Your task to perform on an android device: Search for Mexican restaurants on Maps Image 0: 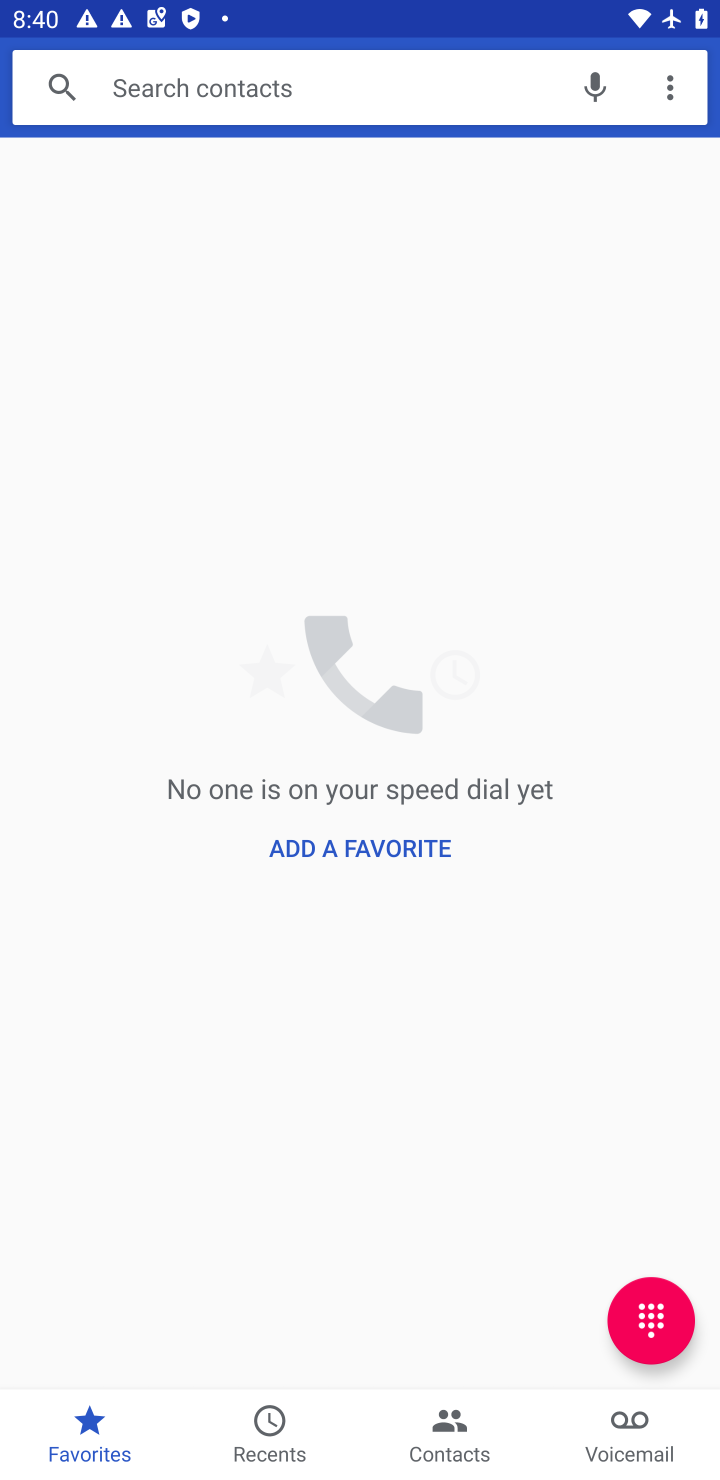
Step 0: press home button
Your task to perform on an android device: Search for Mexican restaurants on Maps Image 1: 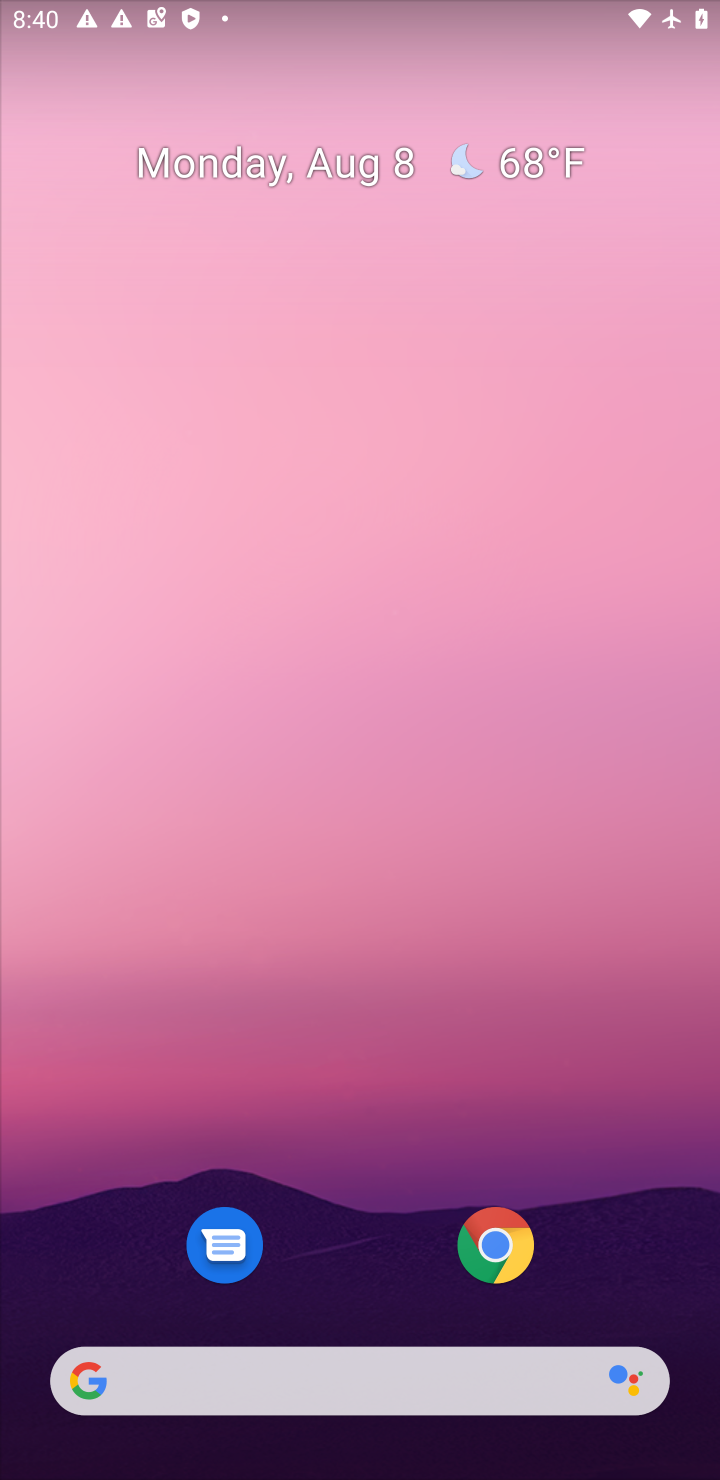
Step 1: drag from (385, 1133) to (328, 6)
Your task to perform on an android device: Search for Mexican restaurants on Maps Image 2: 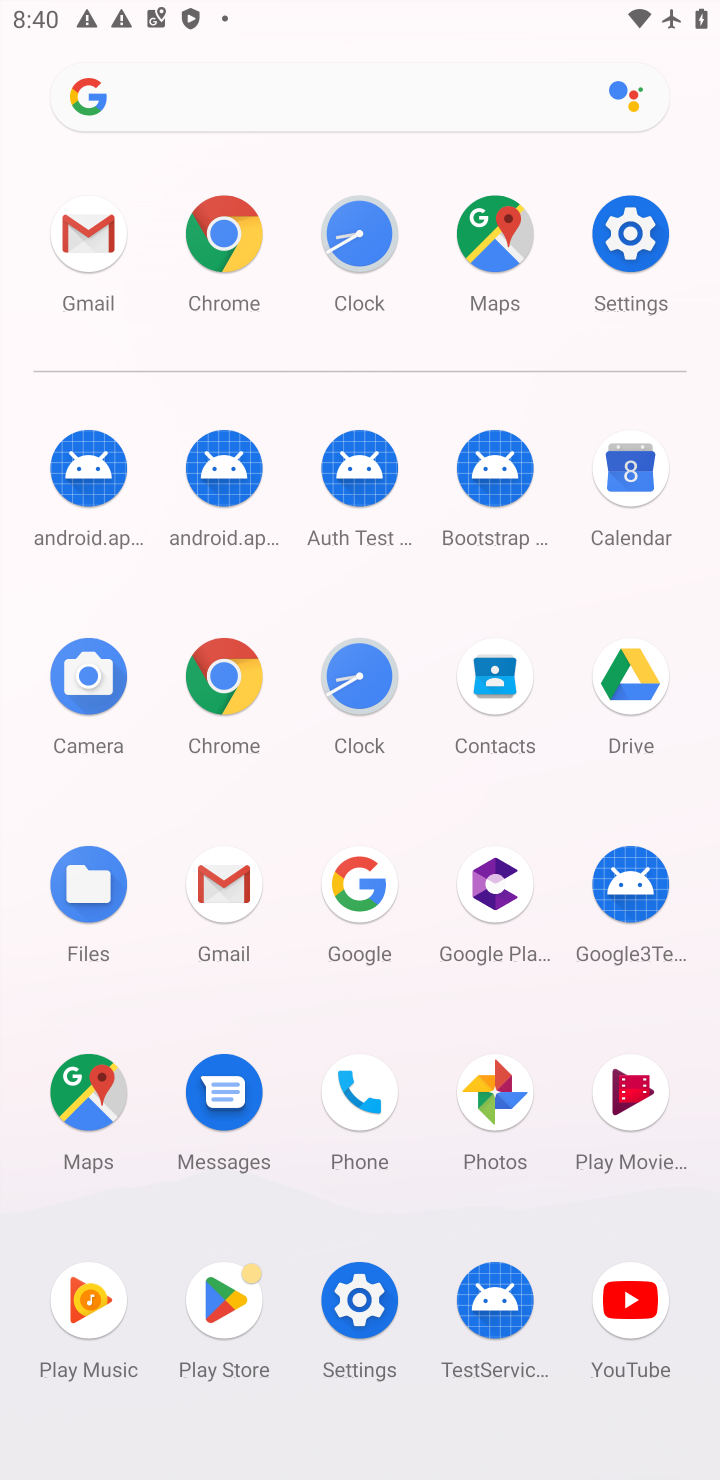
Step 2: click (81, 1082)
Your task to perform on an android device: Search for Mexican restaurants on Maps Image 3: 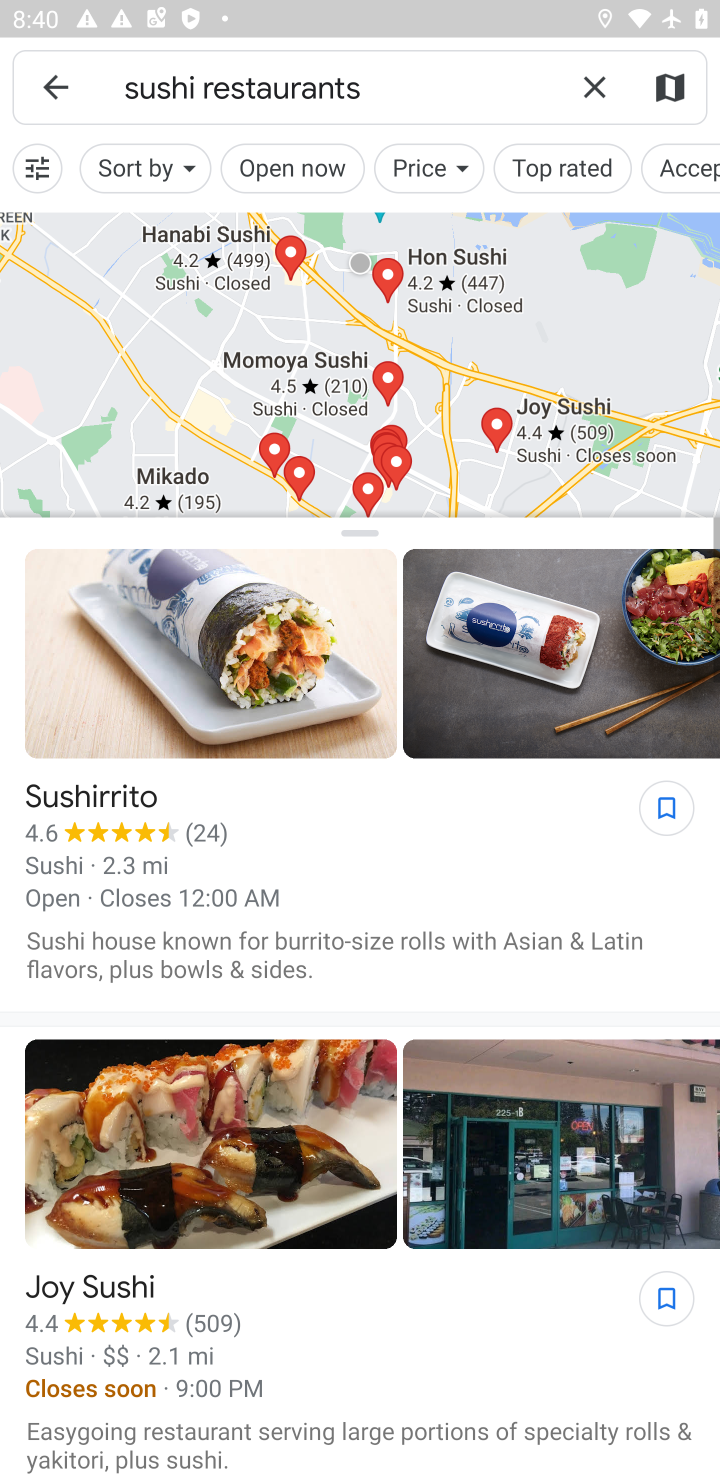
Step 3: click (154, 83)
Your task to perform on an android device: Search for Mexican restaurants on Maps Image 4: 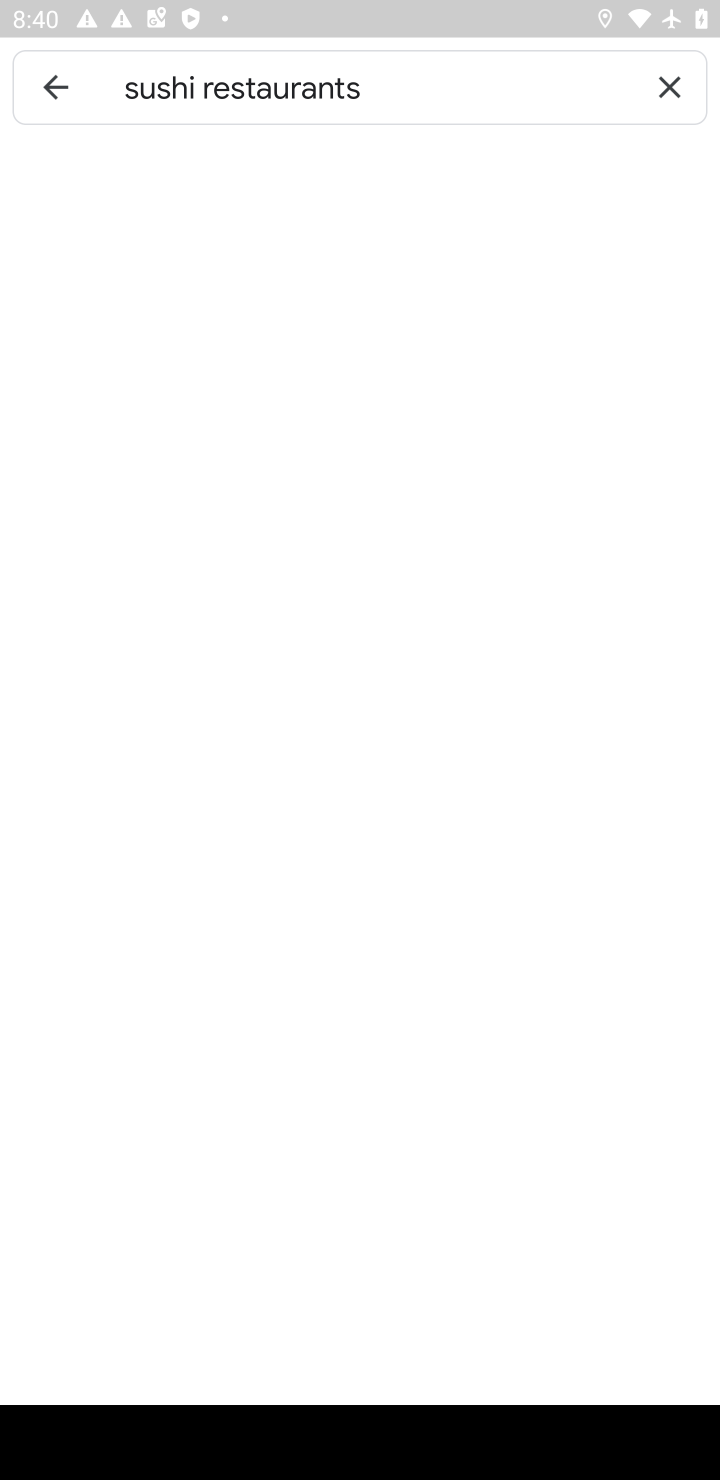
Step 4: click (159, 82)
Your task to perform on an android device: Search for Mexican restaurants on Maps Image 5: 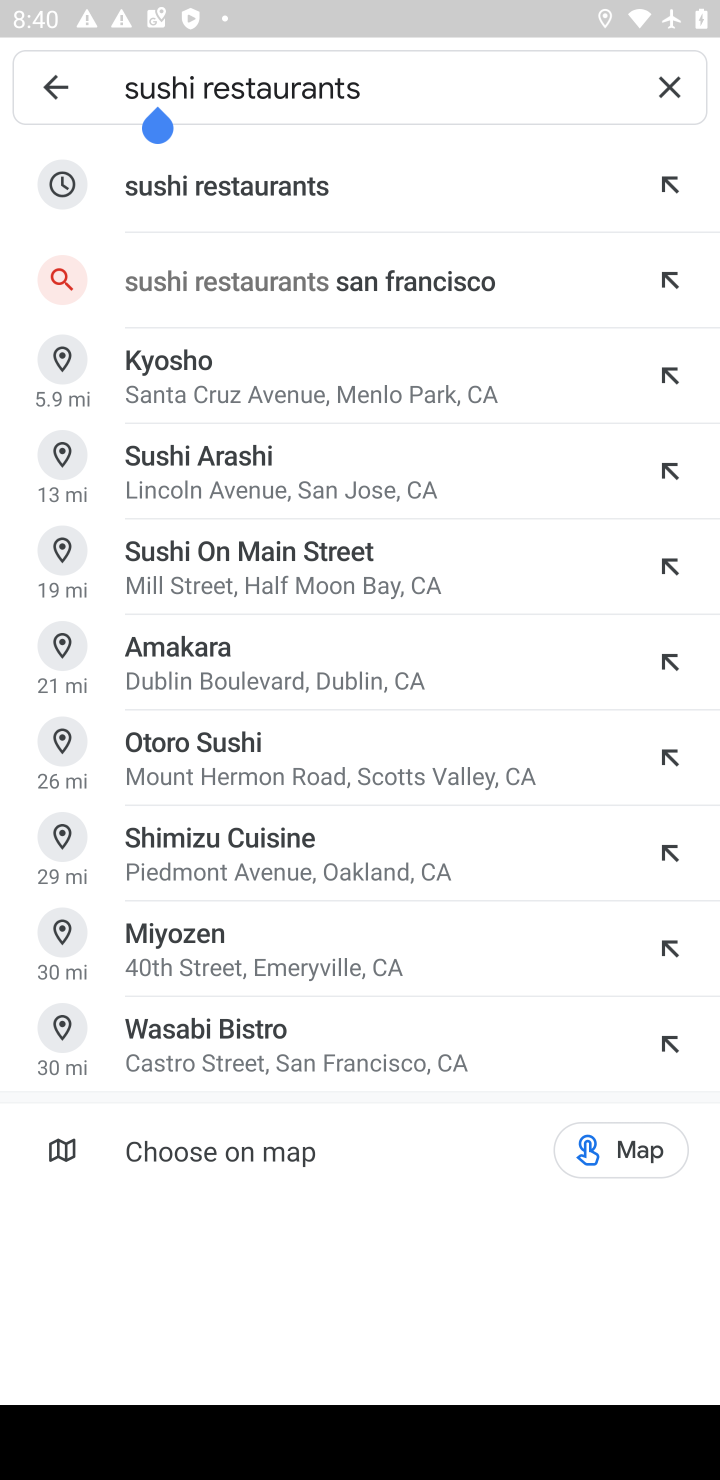
Step 5: click (161, 82)
Your task to perform on an android device: Search for Mexican restaurants on Maps Image 6: 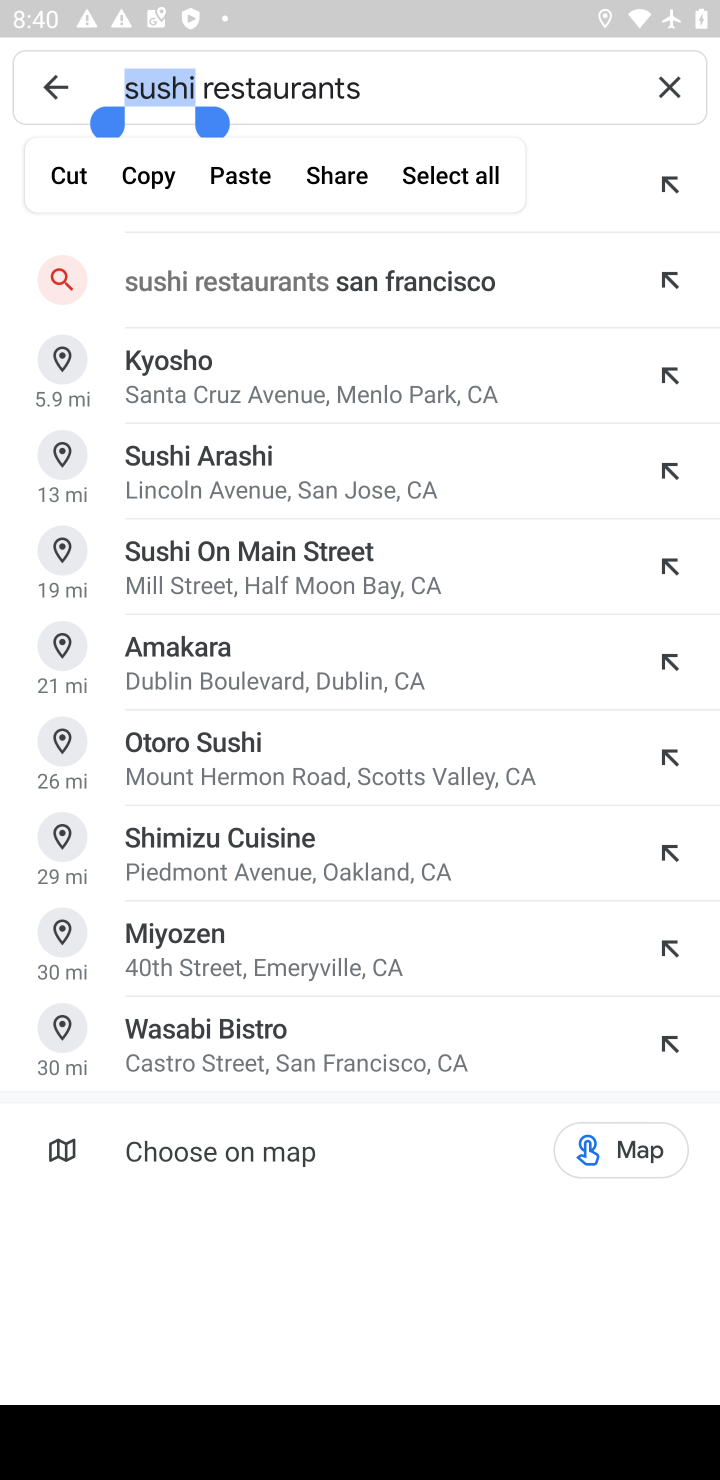
Step 6: type "mexican"
Your task to perform on an android device: Search for Mexican restaurants on Maps Image 7: 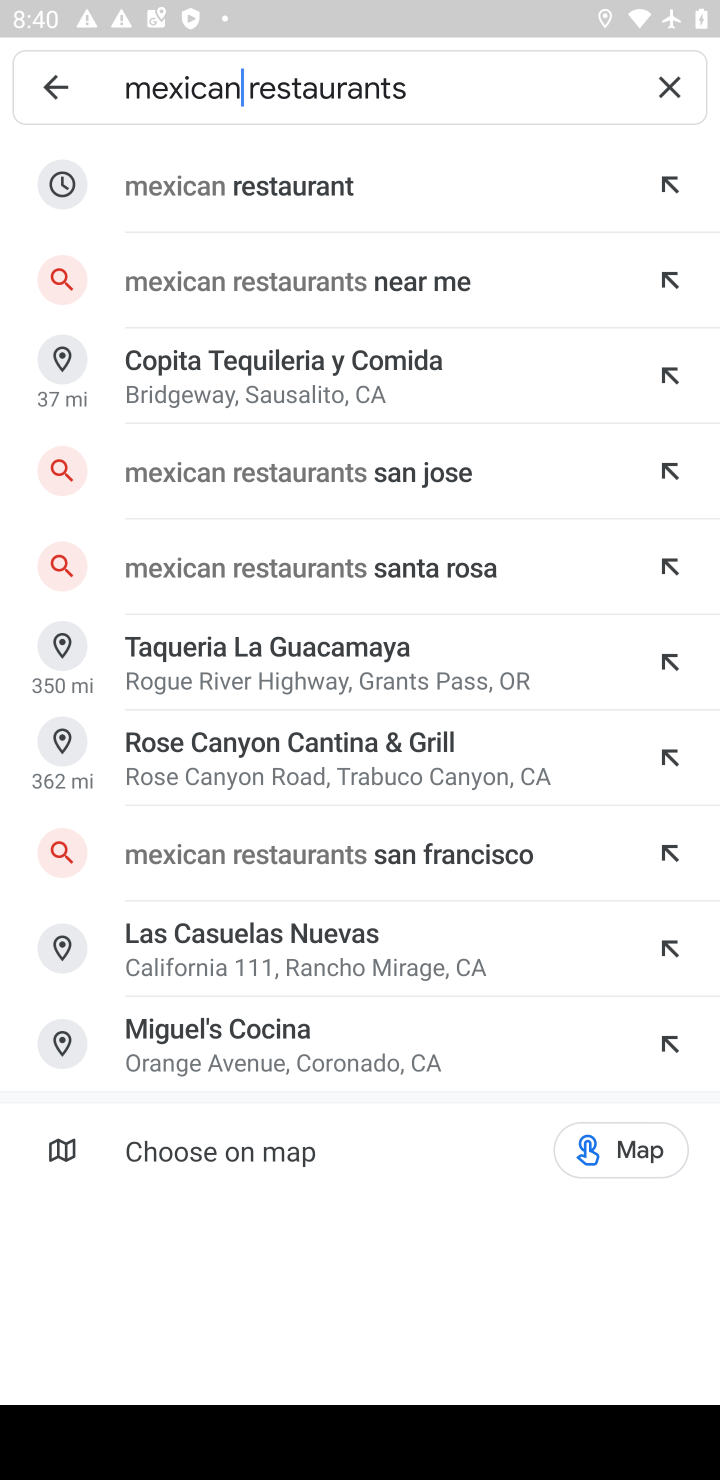
Step 7: click (213, 190)
Your task to perform on an android device: Search for Mexican restaurants on Maps Image 8: 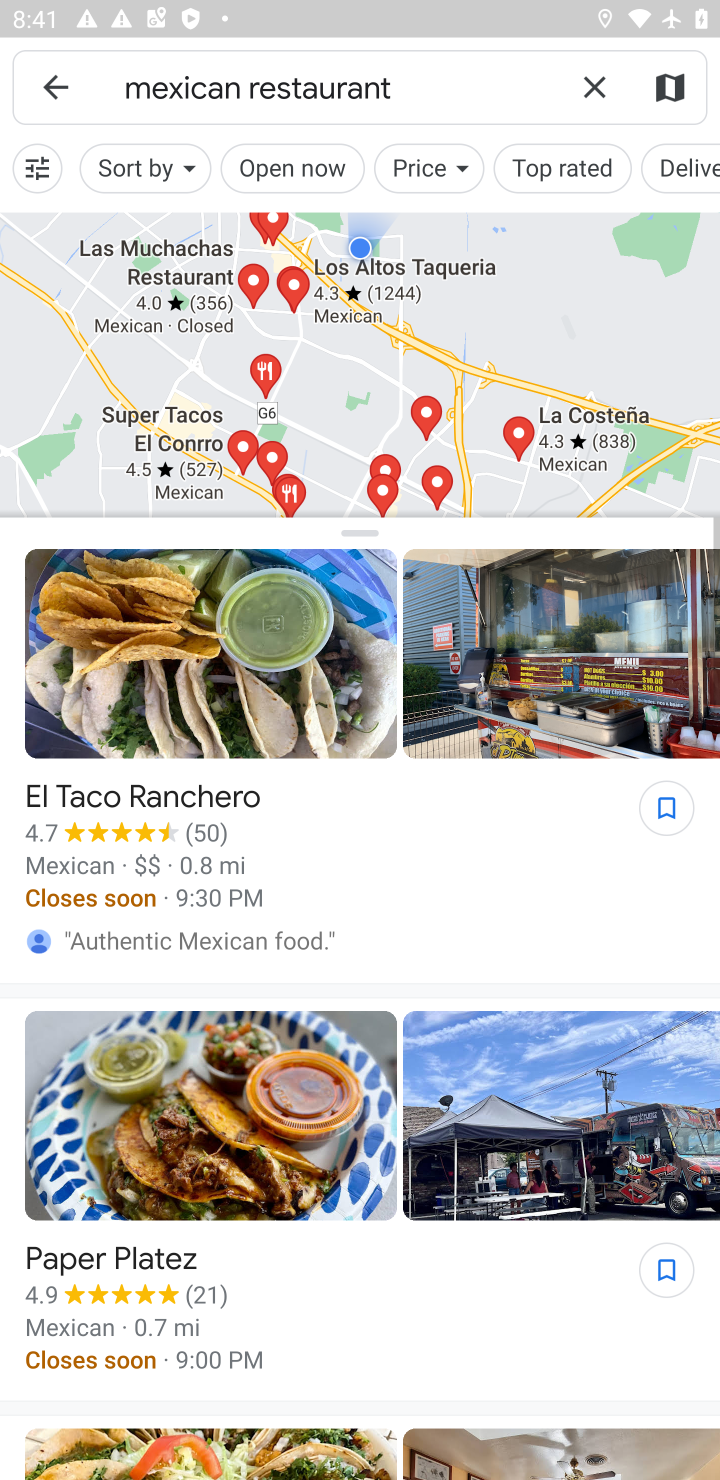
Step 8: task complete